Your task to perform on an android device: Open accessibility settings Image 0: 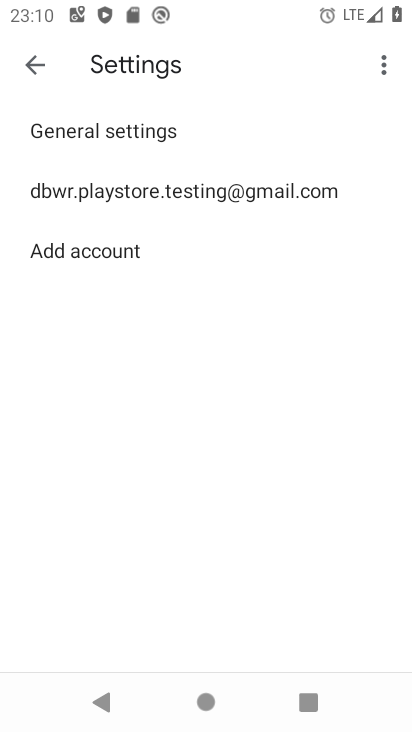
Step 0: press home button
Your task to perform on an android device: Open accessibility settings Image 1: 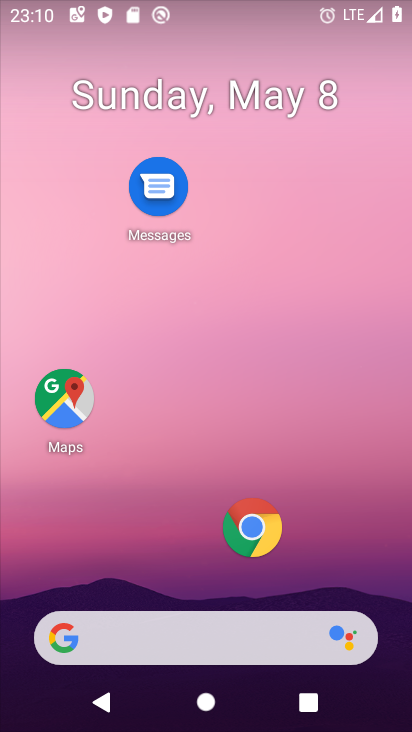
Step 1: drag from (165, 560) to (166, 38)
Your task to perform on an android device: Open accessibility settings Image 2: 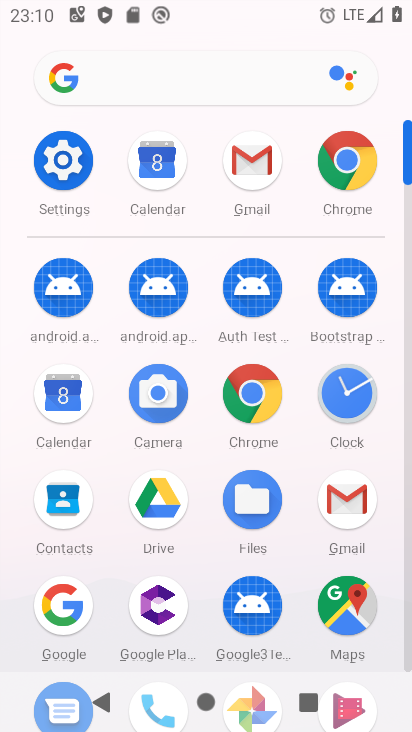
Step 2: click (67, 164)
Your task to perform on an android device: Open accessibility settings Image 3: 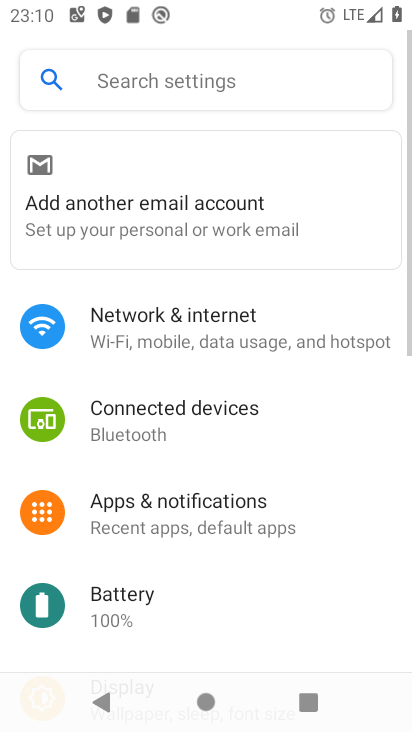
Step 3: drag from (220, 604) to (266, 115)
Your task to perform on an android device: Open accessibility settings Image 4: 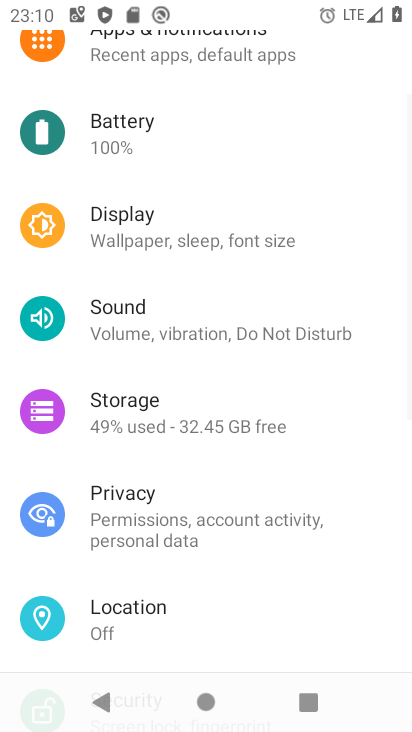
Step 4: drag from (250, 550) to (230, 188)
Your task to perform on an android device: Open accessibility settings Image 5: 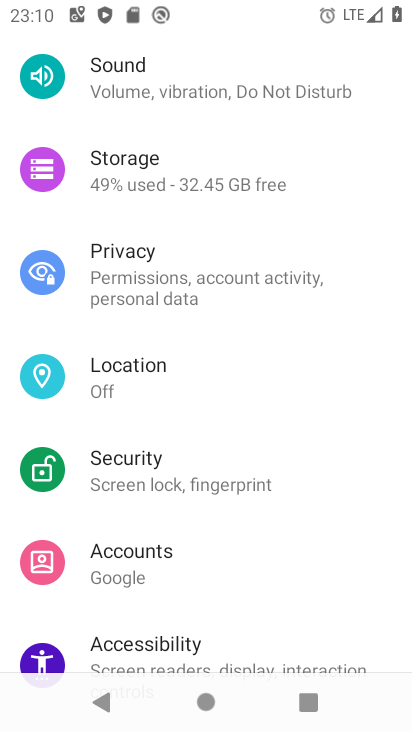
Step 5: click (190, 642)
Your task to perform on an android device: Open accessibility settings Image 6: 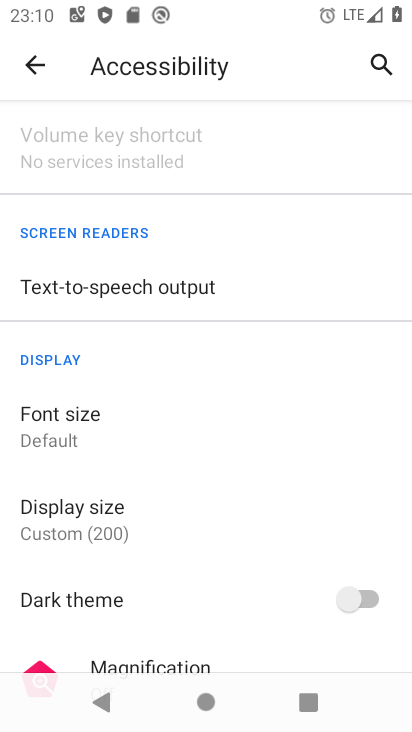
Step 6: task complete